Your task to perform on an android device: When is my next appointment? Image 0: 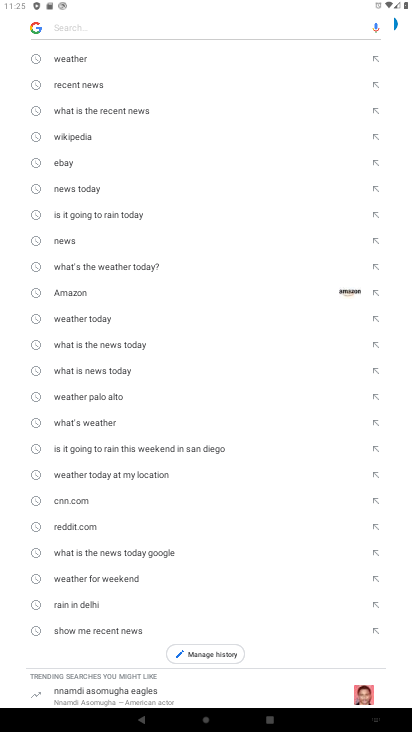
Step 0: press home button
Your task to perform on an android device: When is my next appointment? Image 1: 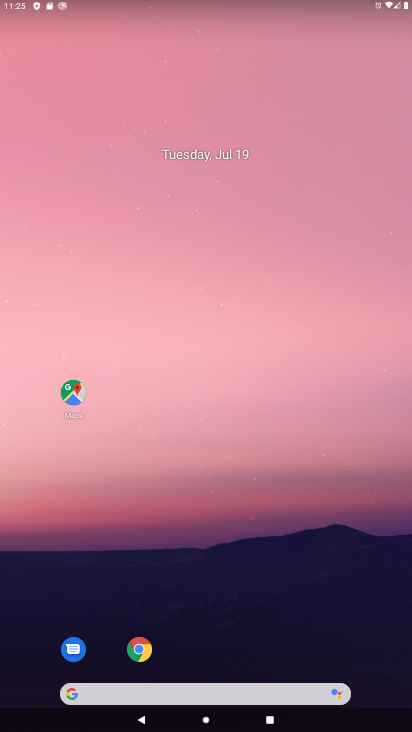
Step 1: drag from (289, 647) to (241, 68)
Your task to perform on an android device: When is my next appointment? Image 2: 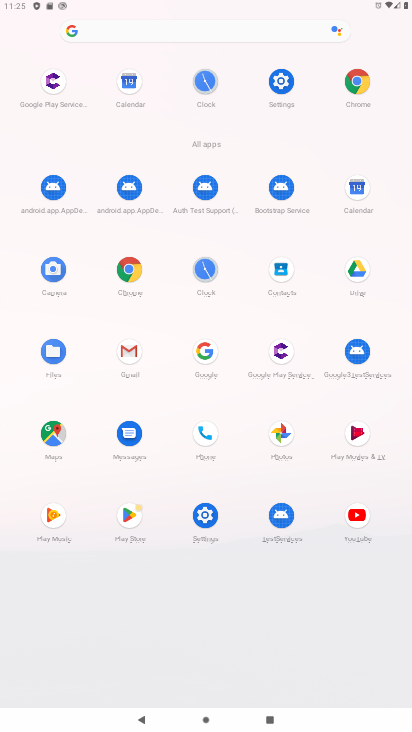
Step 2: click (360, 186)
Your task to perform on an android device: When is my next appointment? Image 3: 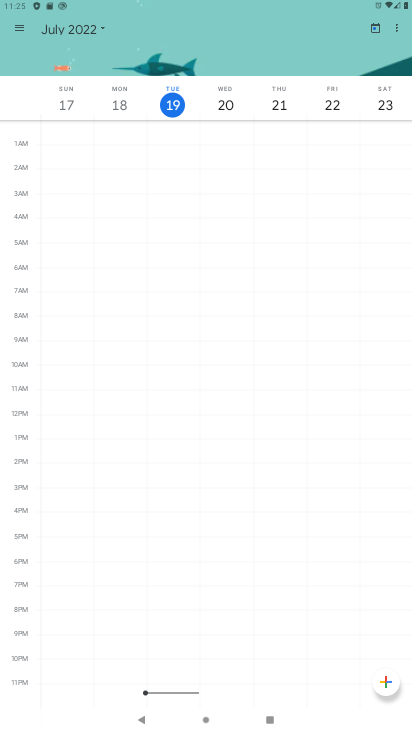
Step 3: click (103, 27)
Your task to perform on an android device: When is my next appointment? Image 4: 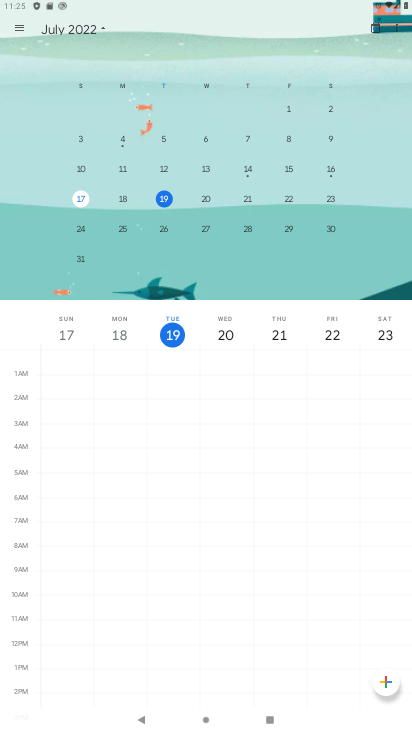
Step 4: click (202, 199)
Your task to perform on an android device: When is my next appointment? Image 5: 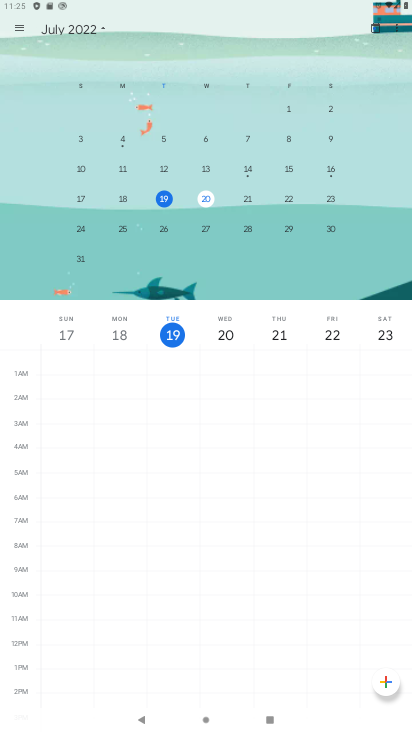
Step 5: task complete